Your task to perform on an android device: turn off sleep mode Image 0: 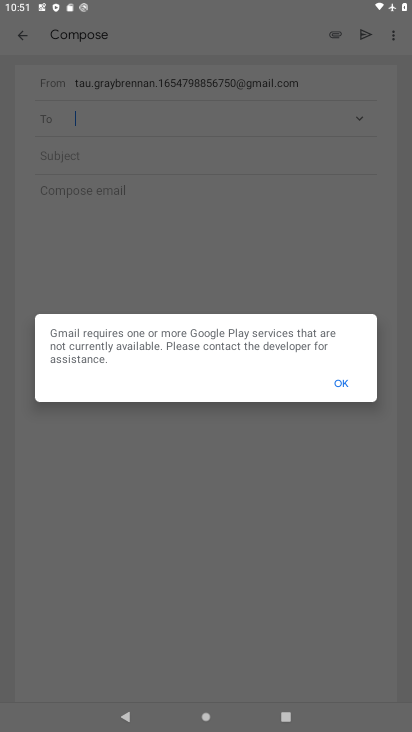
Step 0: press home button
Your task to perform on an android device: turn off sleep mode Image 1: 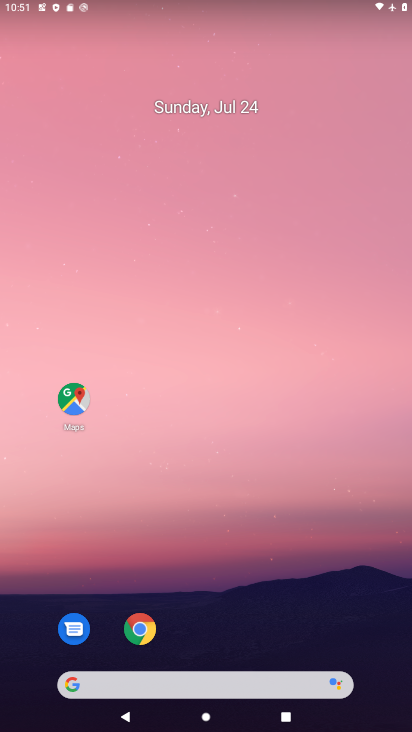
Step 1: drag from (231, 661) to (270, 49)
Your task to perform on an android device: turn off sleep mode Image 2: 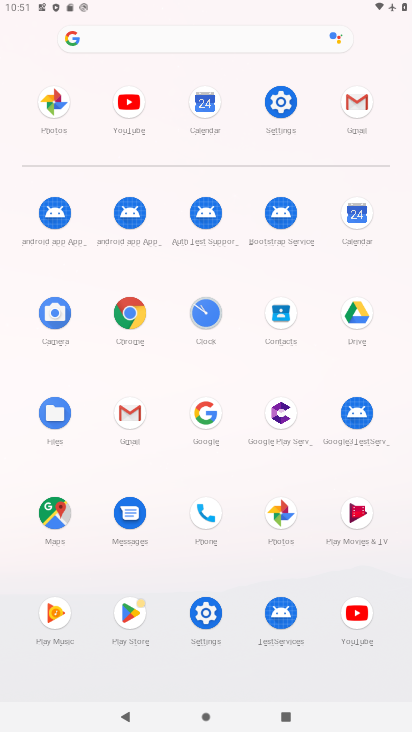
Step 2: click (193, 105)
Your task to perform on an android device: turn off sleep mode Image 3: 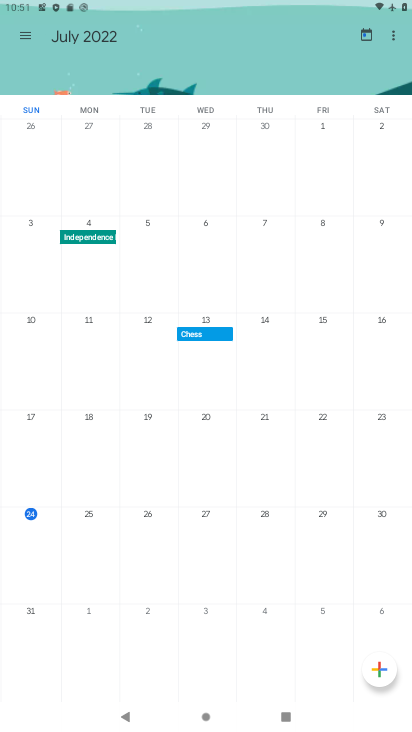
Step 3: task complete